Your task to perform on an android device: install app "Microsoft Authenticator" Image 0: 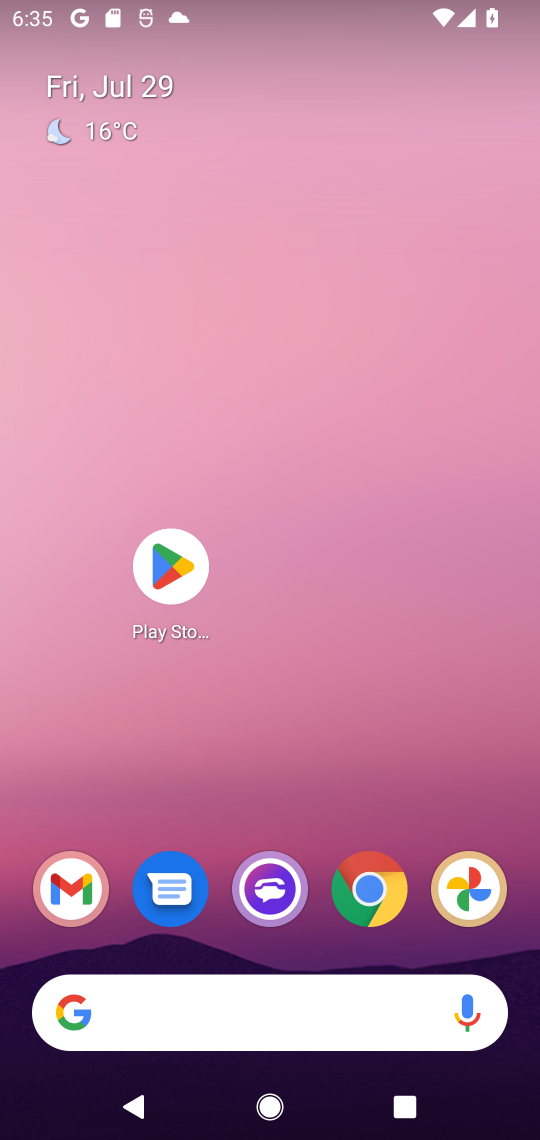
Step 0: click (173, 562)
Your task to perform on an android device: install app "Microsoft Authenticator" Image 1: 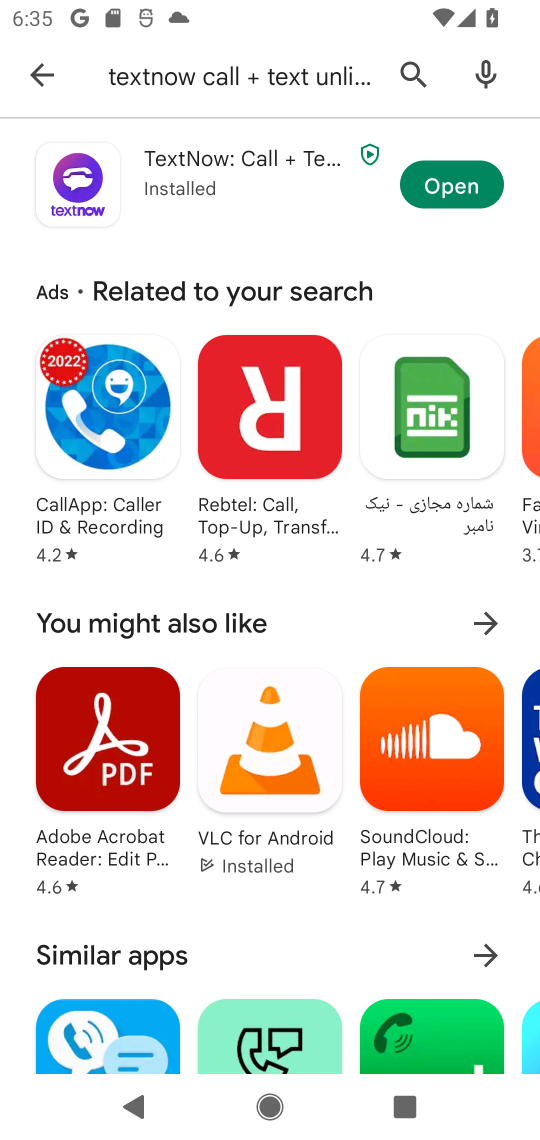
Step 1: click (407, 73)
Your task to perform on an android device: install app "Microsoft Authenticator" Image 2: 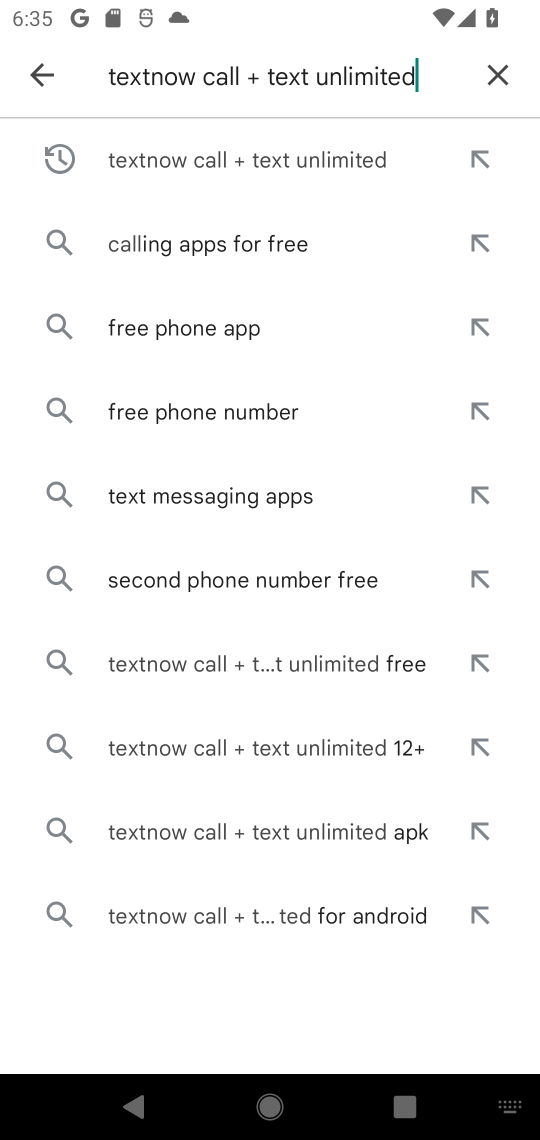
Step 2: click (500, 70)
Your task to perform on an android device: install app "Microsoft Authenticator" Image 3: 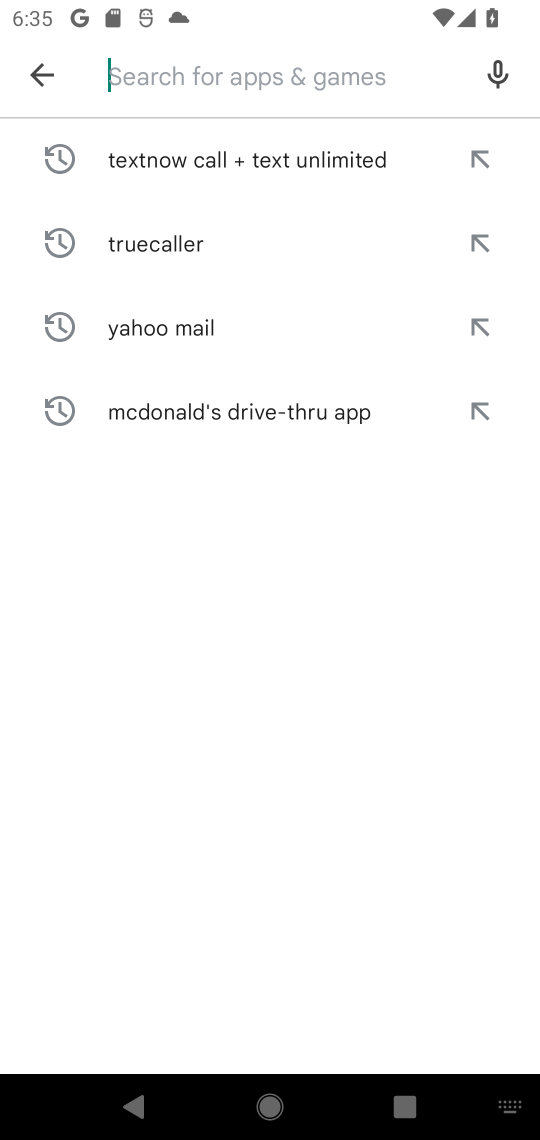
Step 3: type "Microsoft Authenticator"
Your task to perform on an android device: install app "Microsoft Authenticator" Image 4: 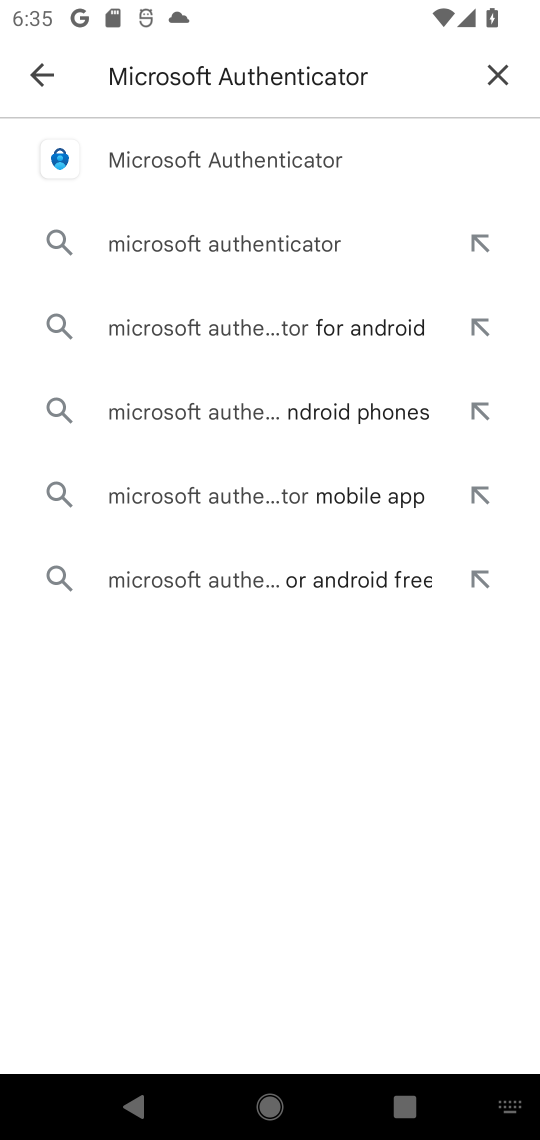
Step 4: click (265, 166)
Your task to perform on an android device: install app "Microsoft Authenticator" Image 5: 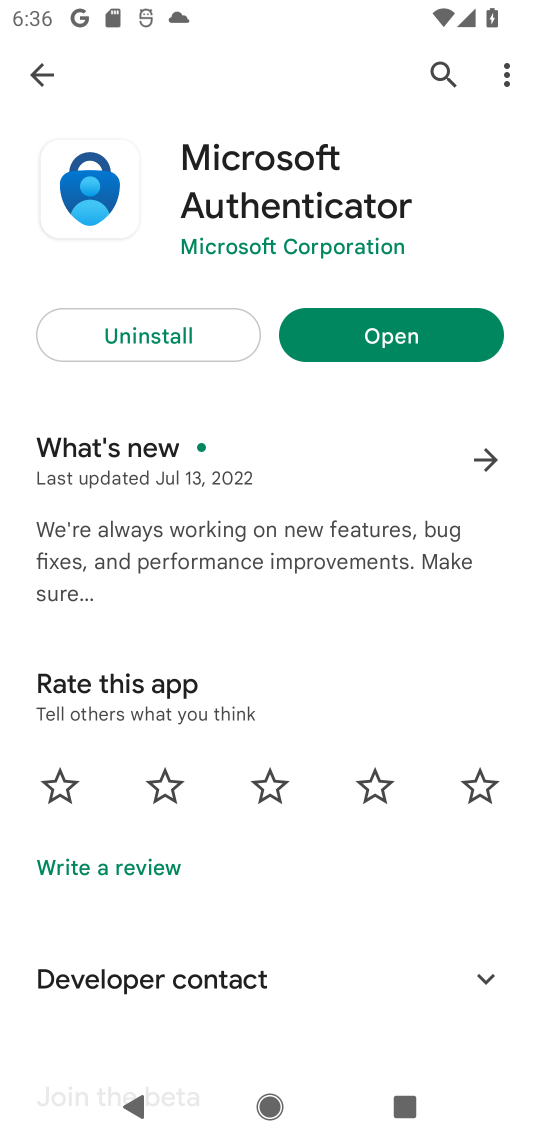
Step 5: task complete